Your task to perform on an android device: manage bookmarks in the chrome app Image 0: 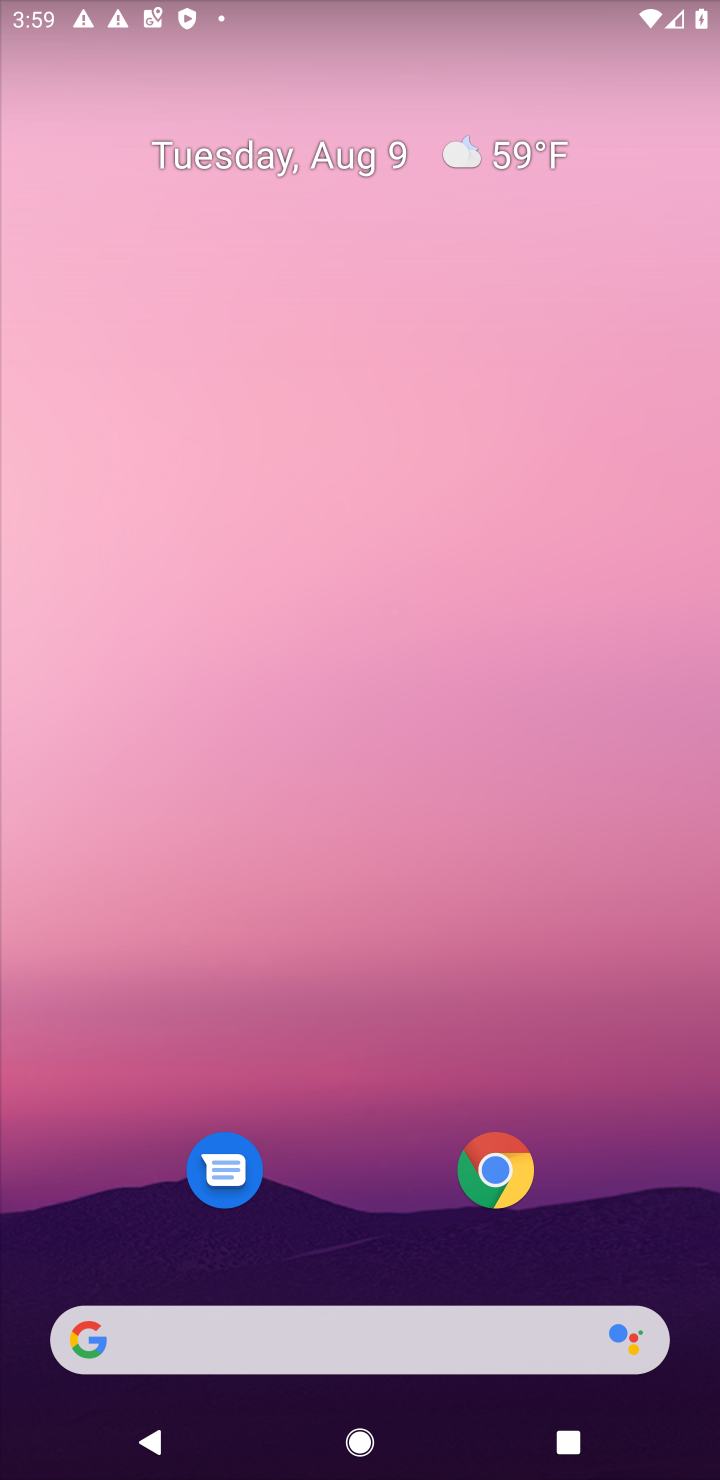
Step 0: click (521, 1163)
Your task to perform on an android device: manage bookmarks in the chrome app Image 1: 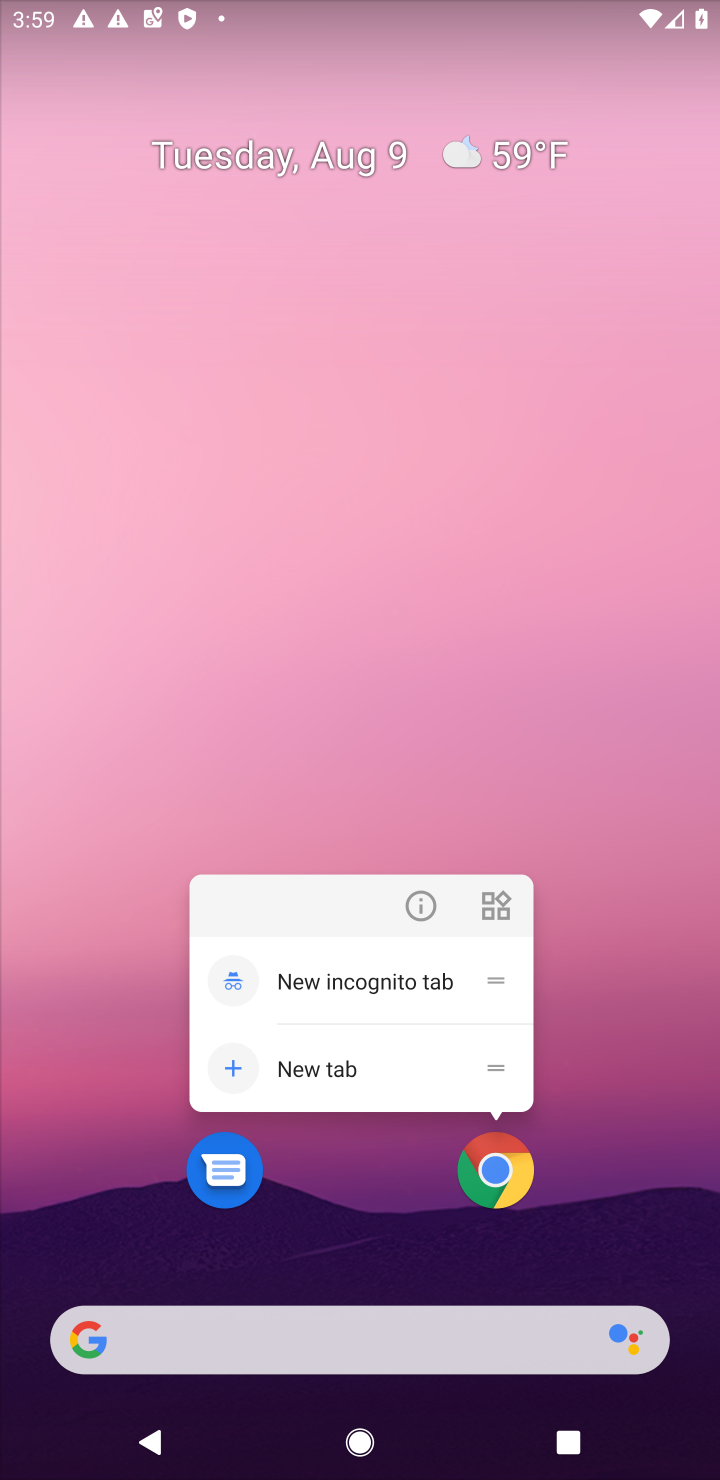
Step 1: click (507, 1192)
Your task to perform on an android device: manage bookmarks in the chrome app Image 2: 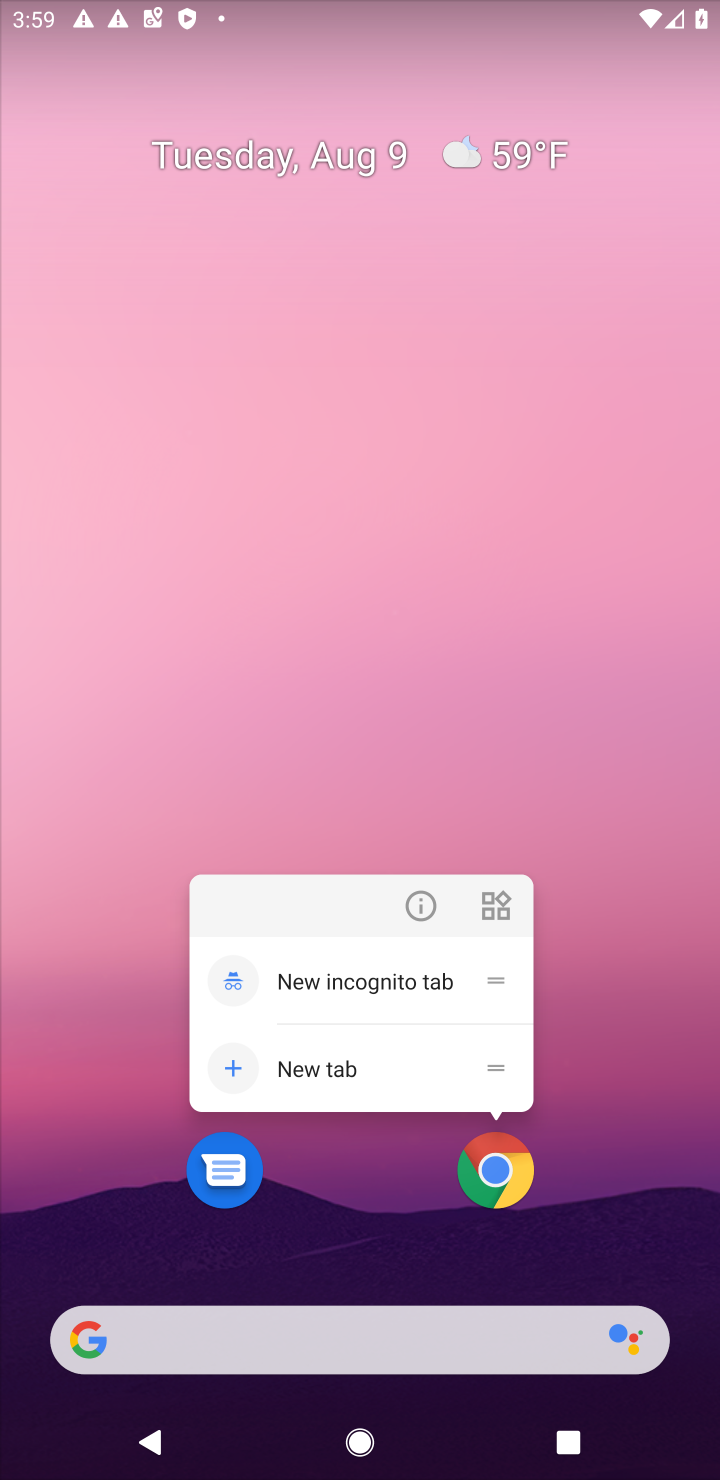
Step 2: click (511, 1183)
Your task to perform on an android device: manage bookmarks in the chrome app Image 3: 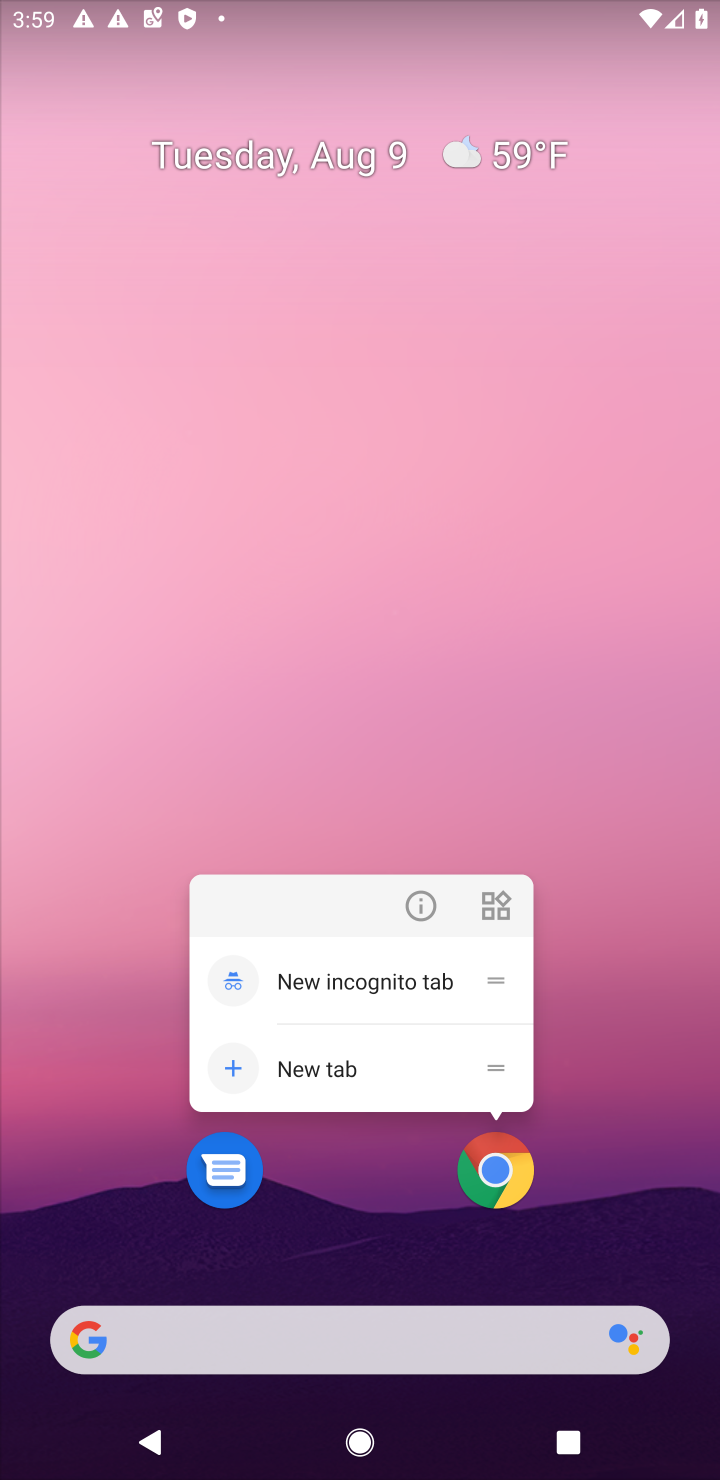
Step 3: click (497, 1168)
Your task to perform on an android device: manage bookmarks in the chrome app Image 4: 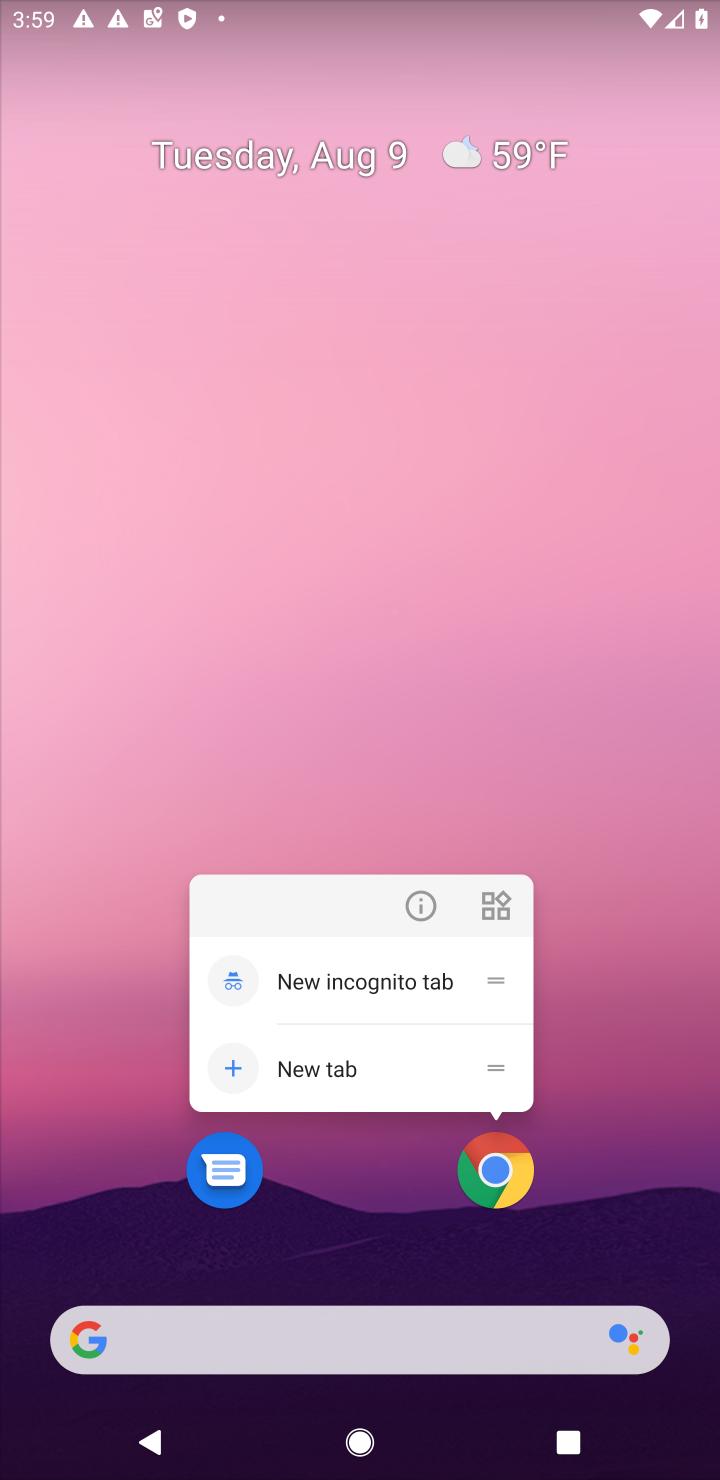
Step 4: click (497, 1168)
Your task to perform on an android device: manage bookmarks in the chrome app Image 5: 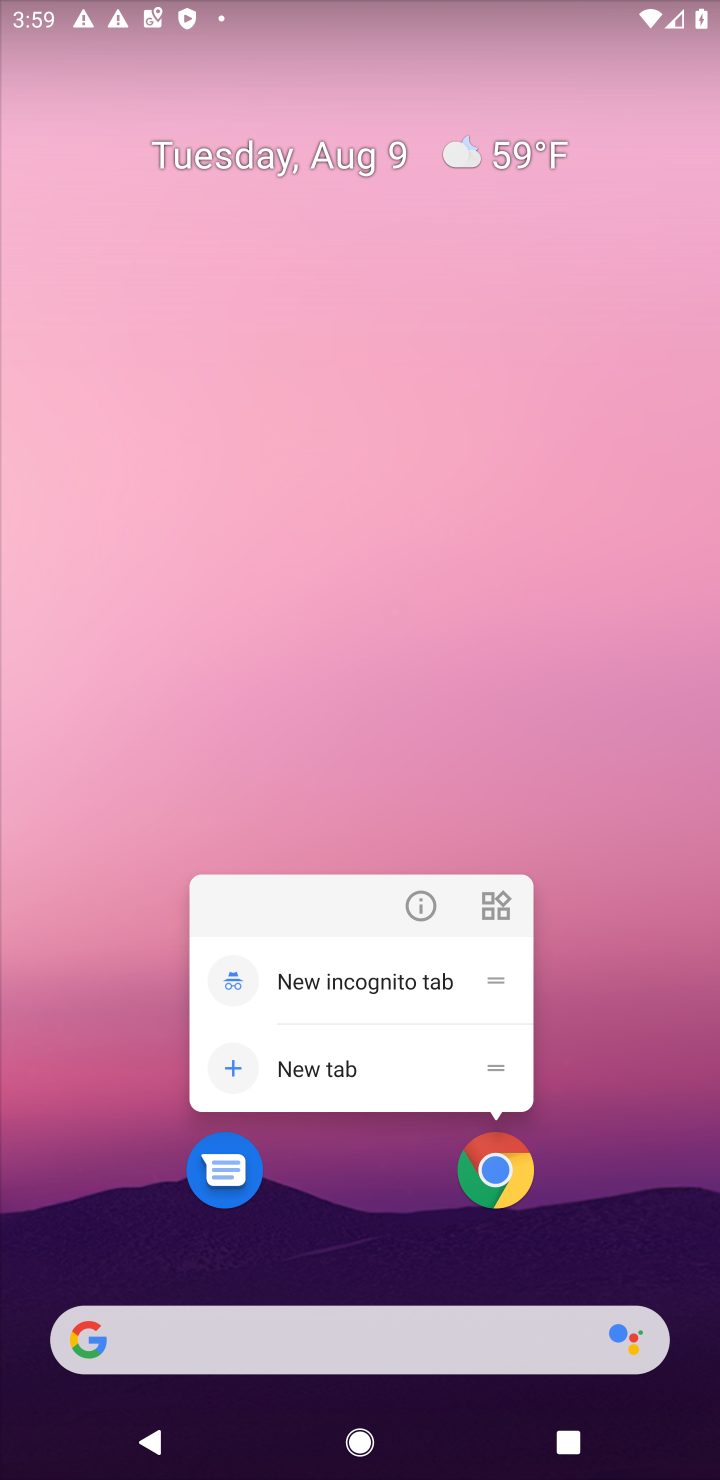
Step 5: click (507, 1177)
Your task to perform on an android device: manage bookmarks in the chrome app Image 6: 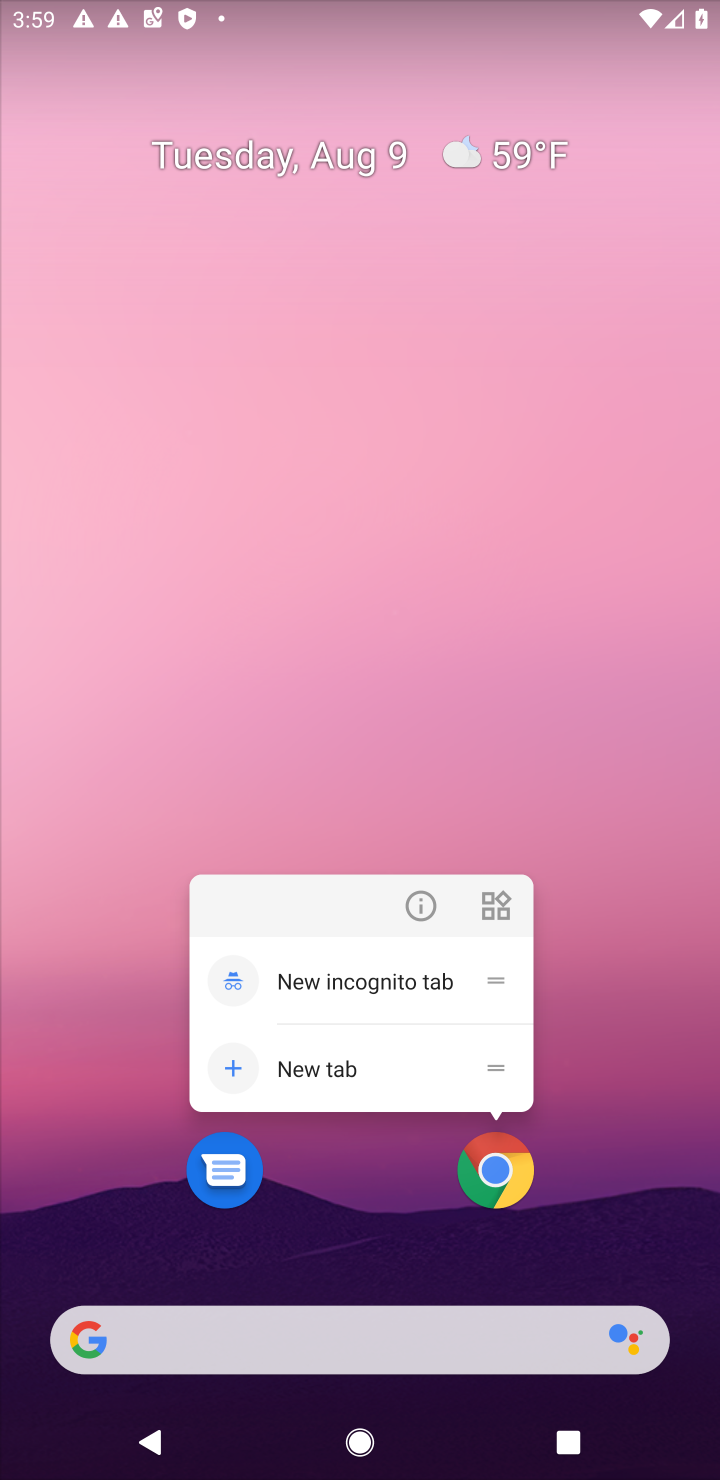
Step 6: click (506, 1181)
Your task to perform on an android device: manage bookmarks in the chrome app Image 7: 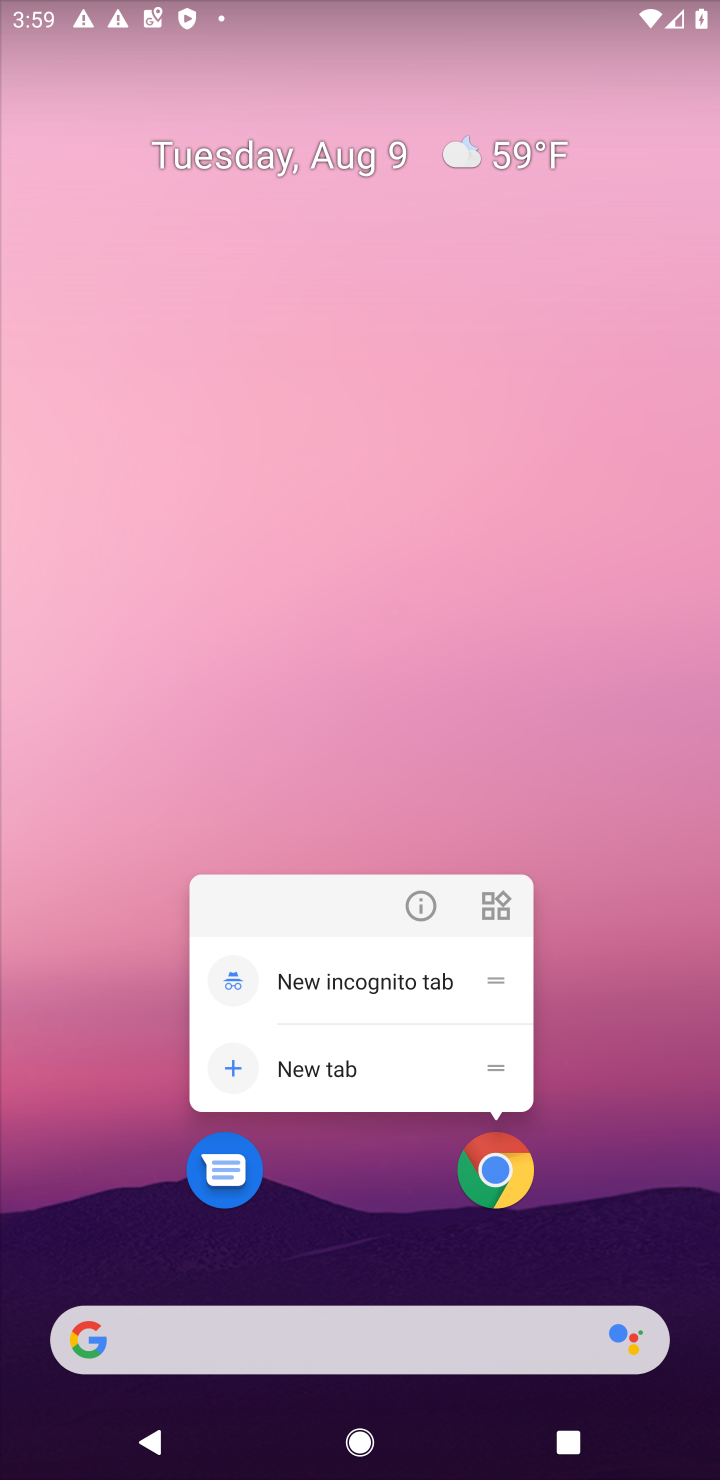
Step 7: click (496, 1172)
Your task to perform on an android device: manage bookmarks in the chrome app Image 8: 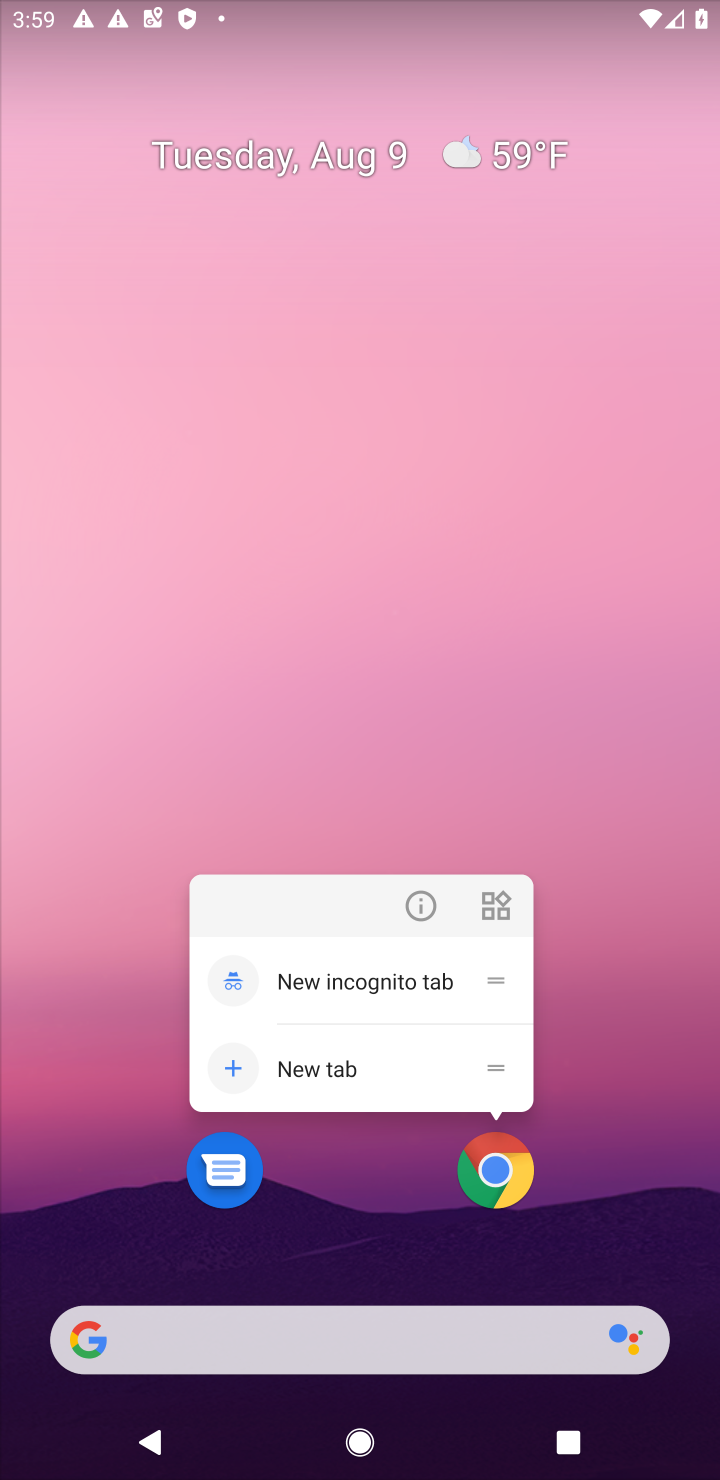
Step 8: press home button
Your task to perform on an android device: manage bookmarks in the chrome app Image 9: 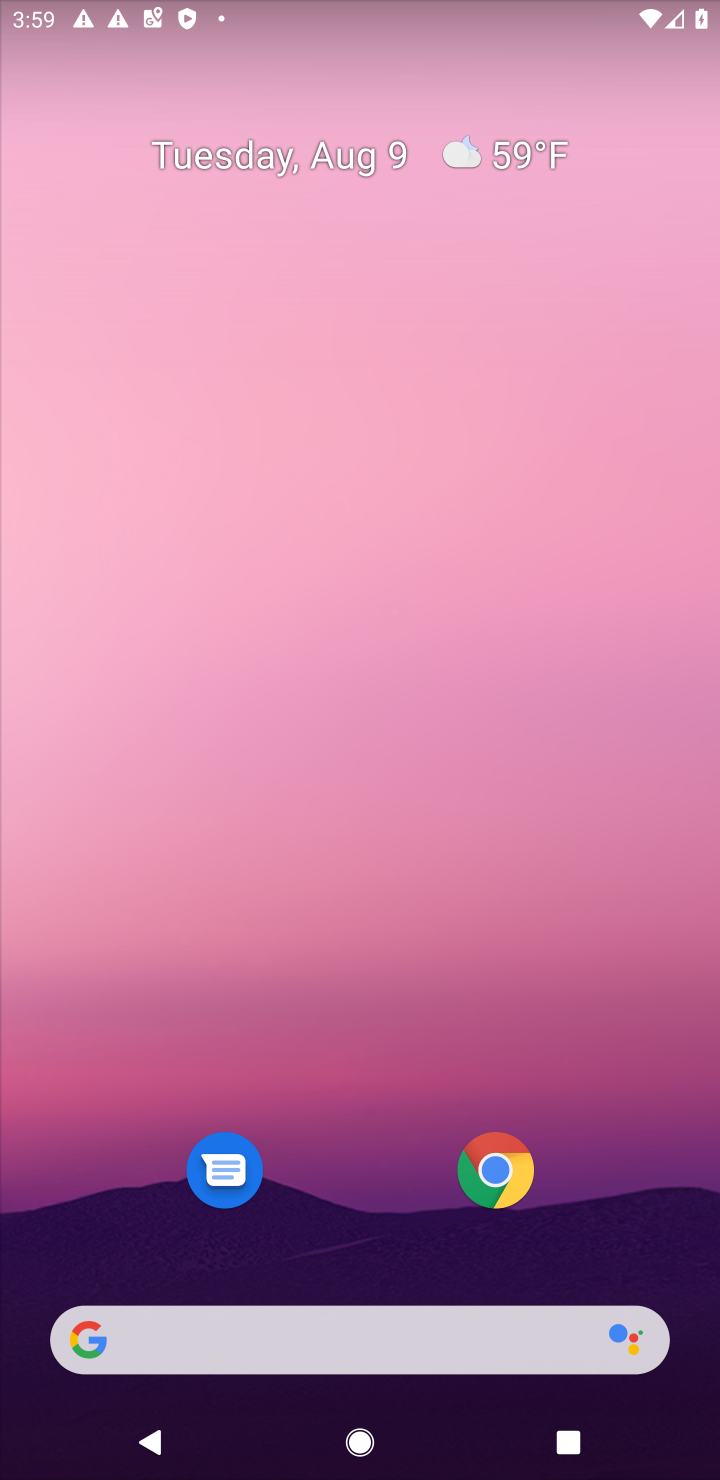
Step 9: click (500, 1187)
Your task to perform on an android device: manage bookmarks in the chrome app Image 10: 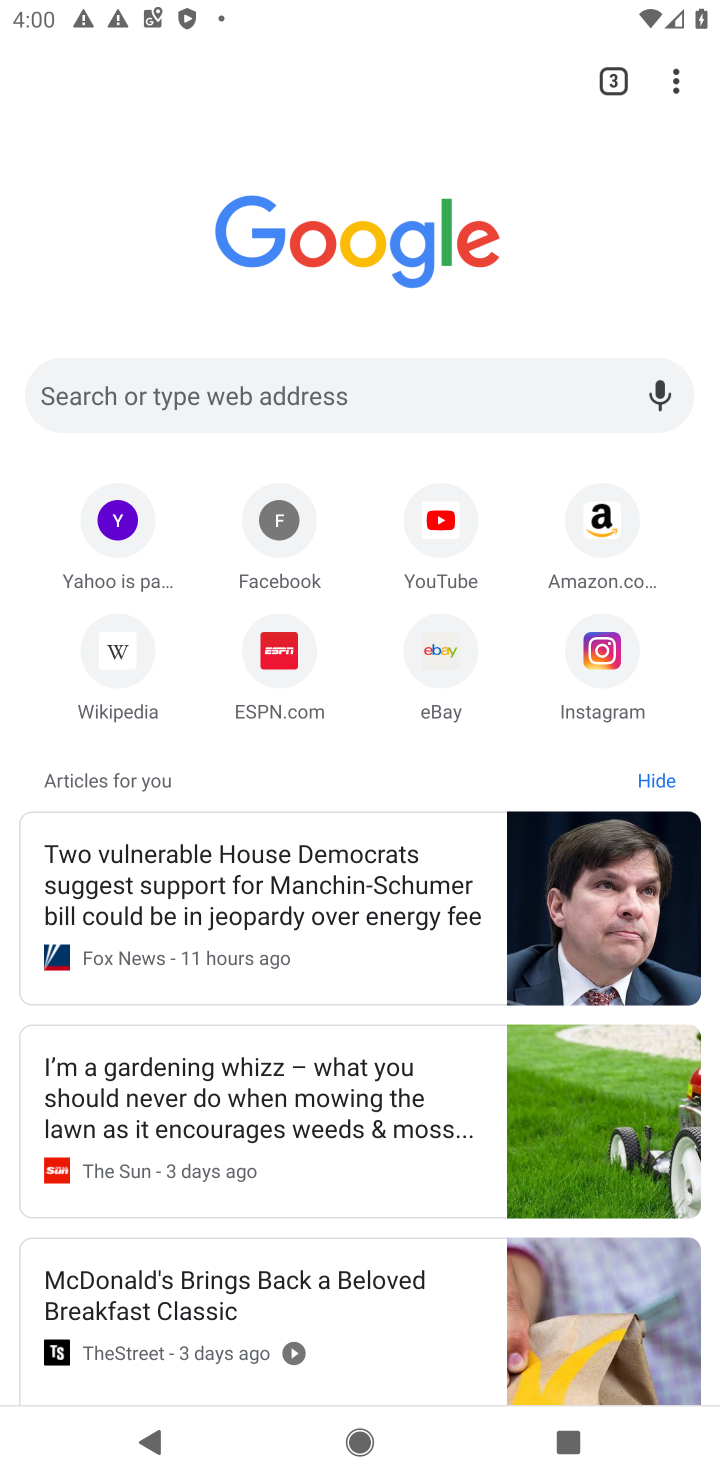
Step 10: task complete